Your task to perform on an android device: open the mobile data screen to see how much data has been used Image 0: 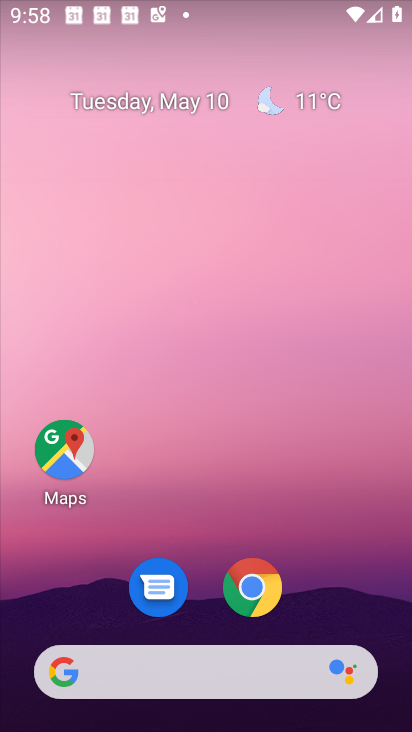
Step 0: drag from (349, 591) to (332, 84)
Your task to perform on an android device: open the mobile data screen to see how much data has been used Image 1: 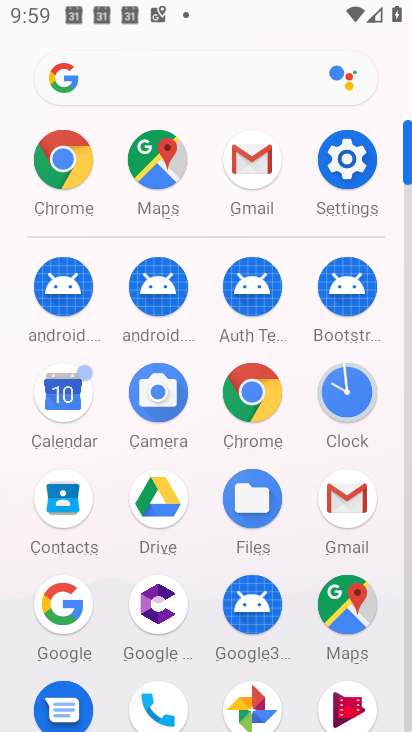
Step 1: drag from (295, 617) to (289, 316)
Your task to perform on an android device: open the mobile data screen to see how much data has been used Image 2: 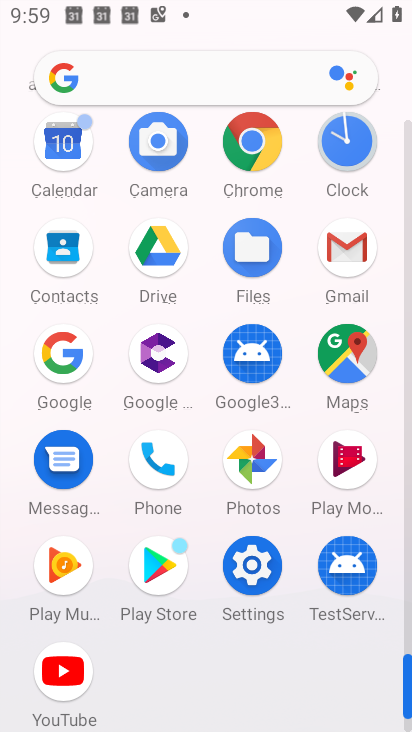
Step 2: click (253, 577)
Your task to perform on an android device: open the mobile data screen to see how much data has been used Image 3: 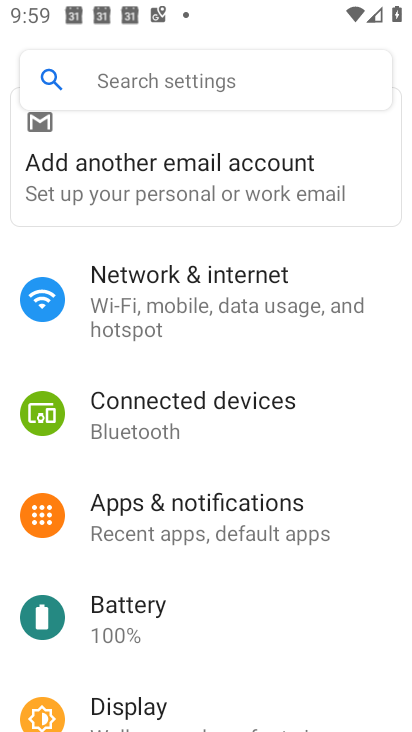
Step 3: click (192, 300)
Your task to perform on an android device: open the mobile data screen to see how much data has been used Image 4: 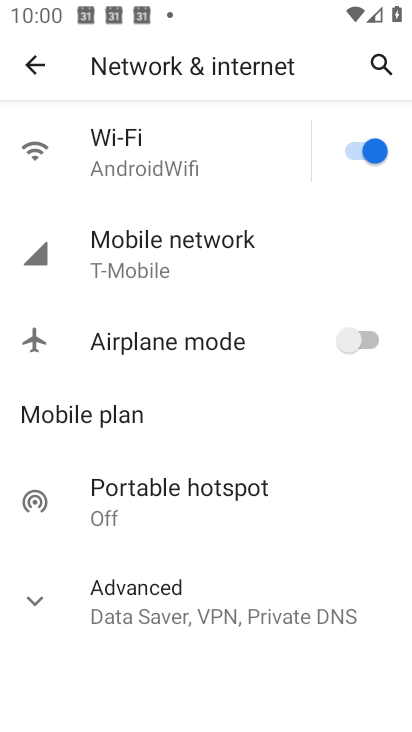
Step 4: click (196, 236)
Your task to perform on an android device: open the mobile data screen to see how much data has been used Image 5: 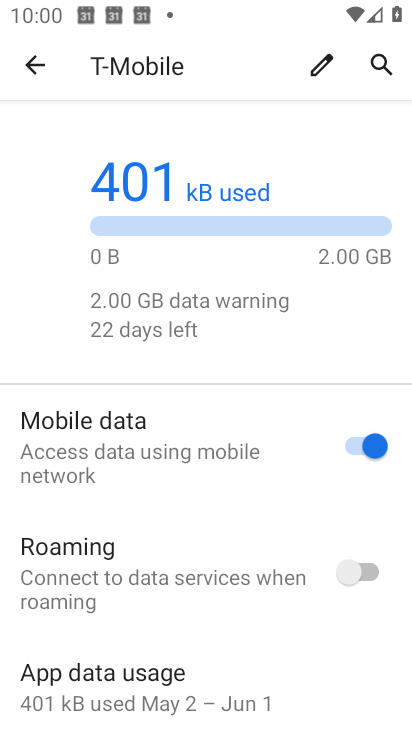
Step 5: task complete